Your task to perform on an android device: uninstall "Messages" Image 0: 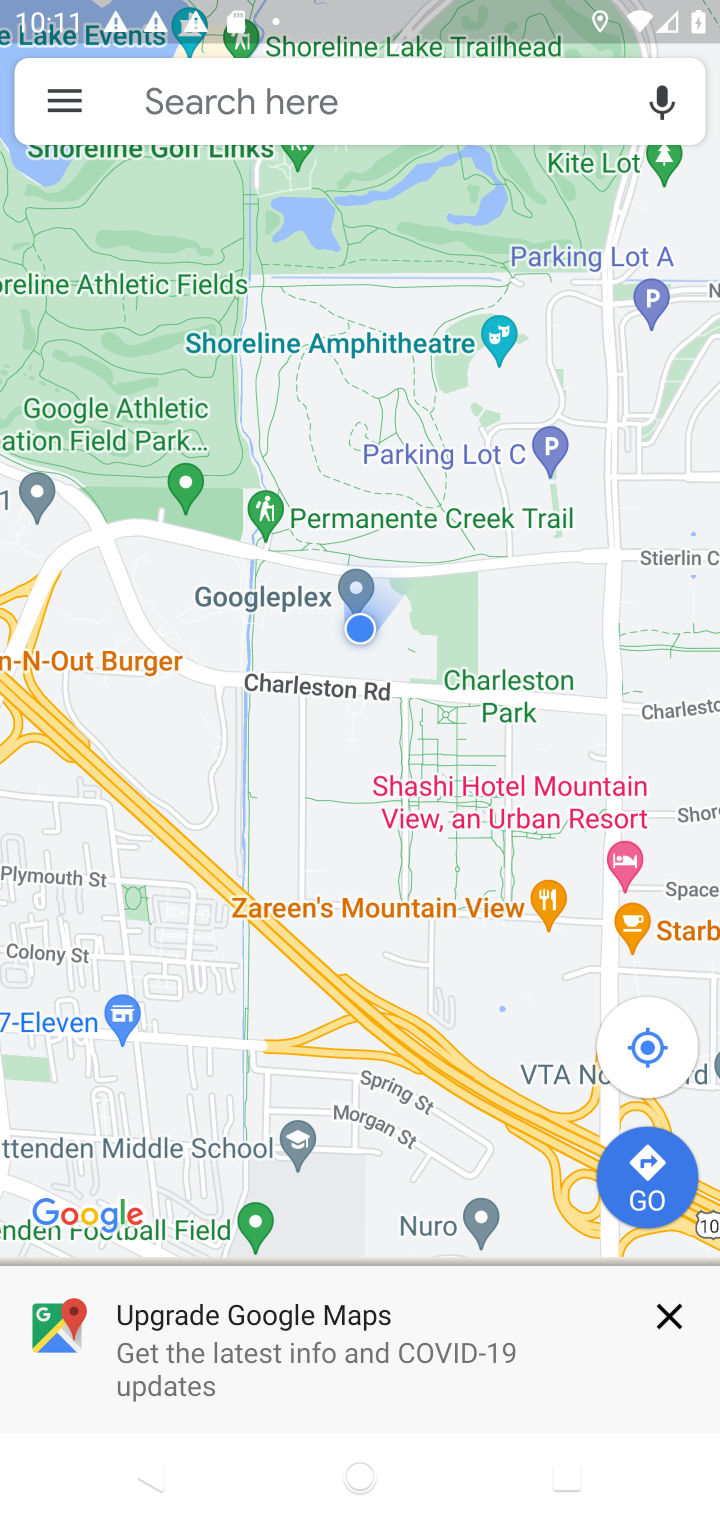
Step 0: press home button
Your task to perform on an android device: uninstall "Messages" Image 1: 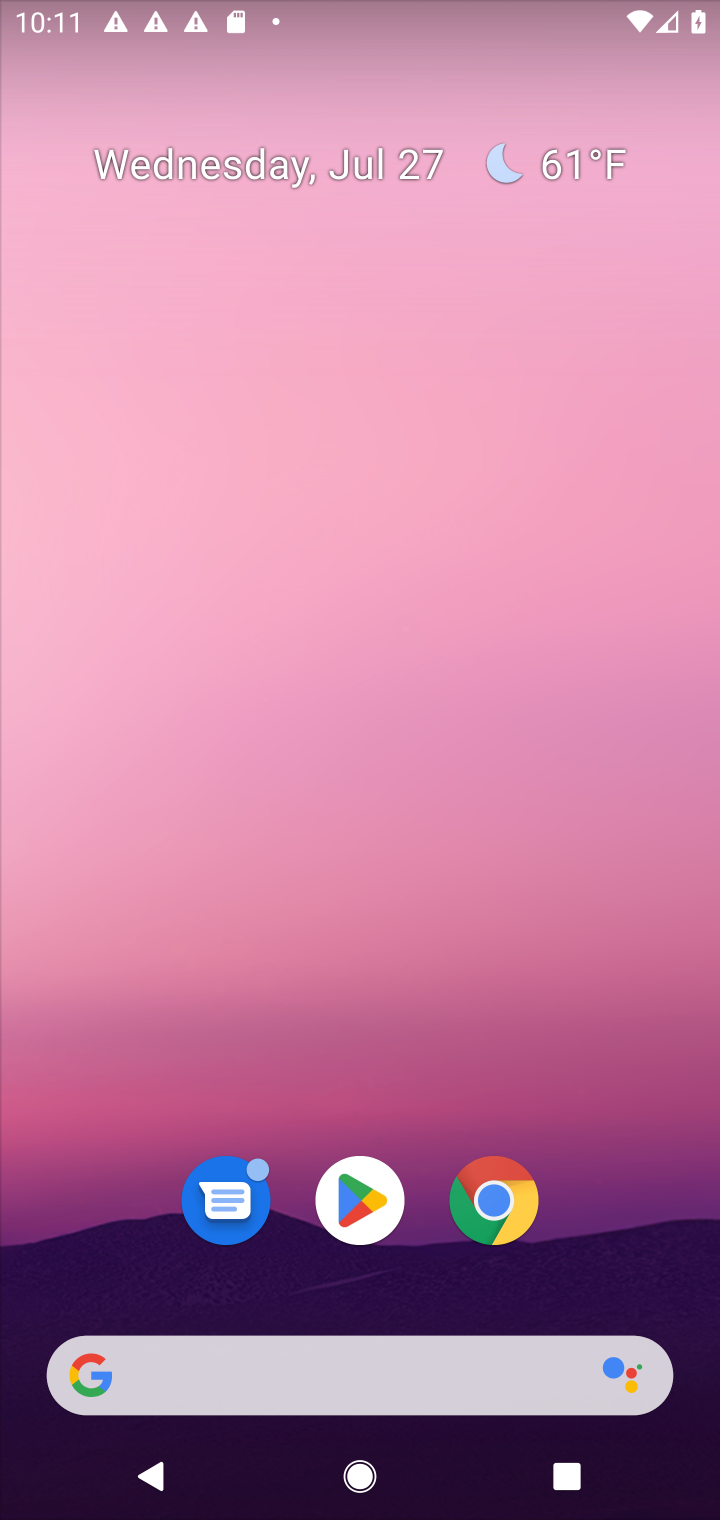
Step 1: click (351, 1177)
Your task to perform on an android device: uninstall "Messages" Image 2: 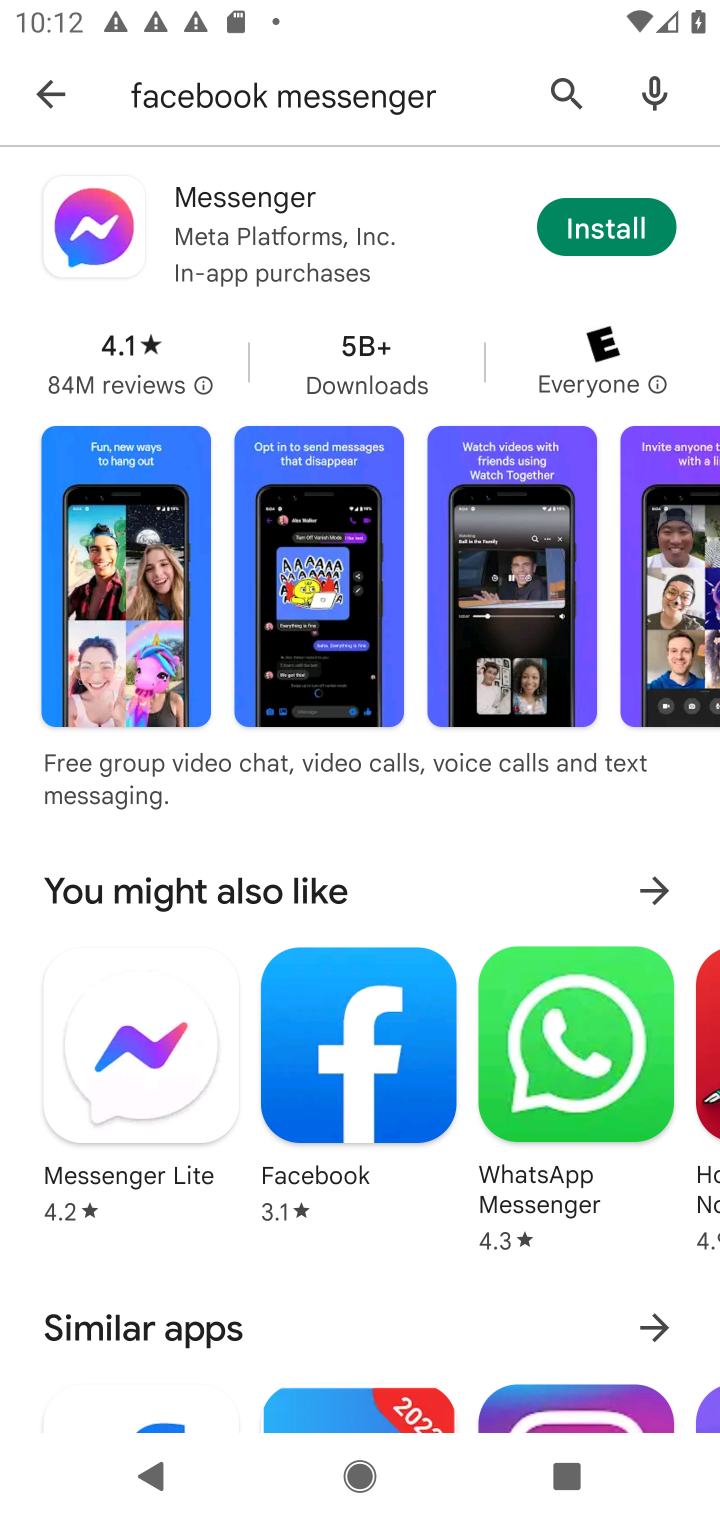
Step 2: click (568, 84)
Your task to perform on an android device: uninstall "Messages" Image 3: 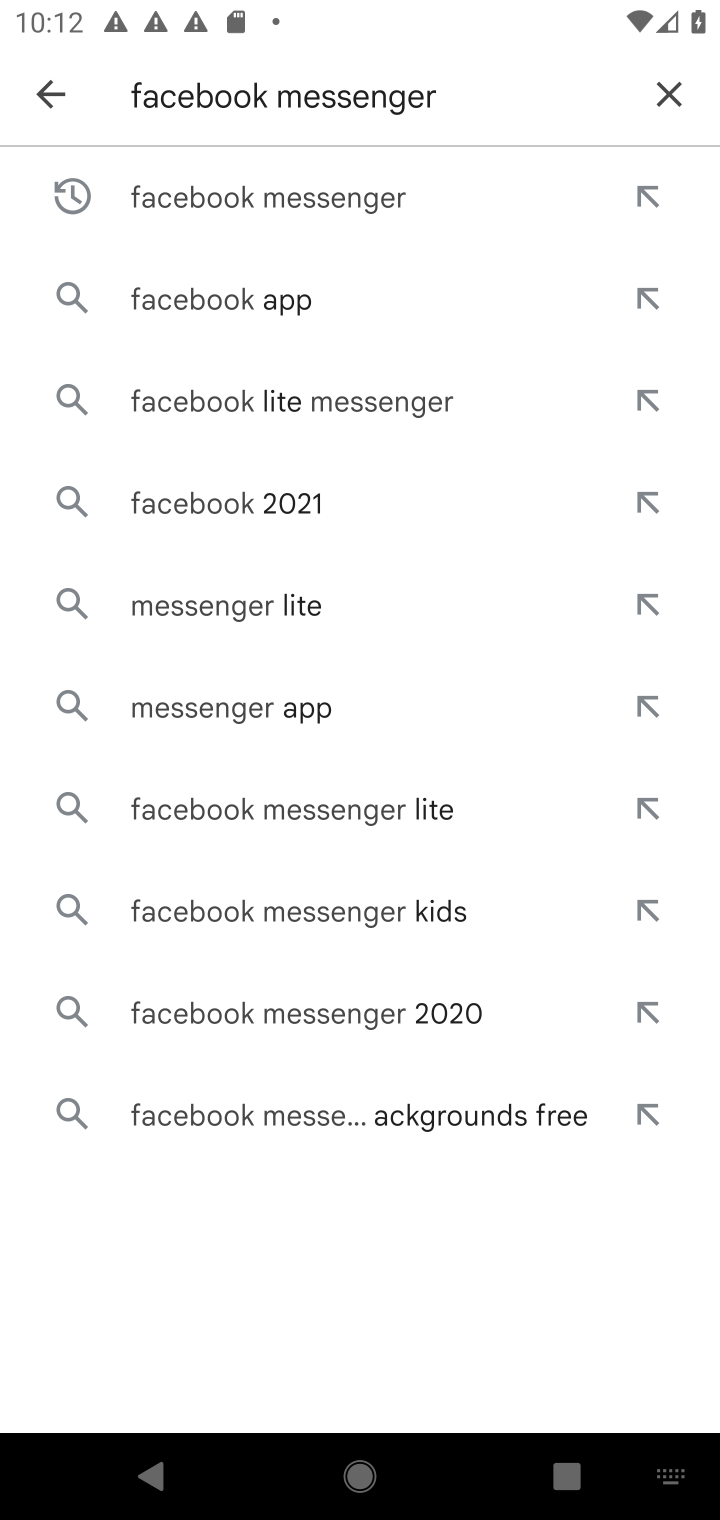
Step 3: click (674, 89)
Your task to perform on an android device: uninstall "Messages" Image 4: 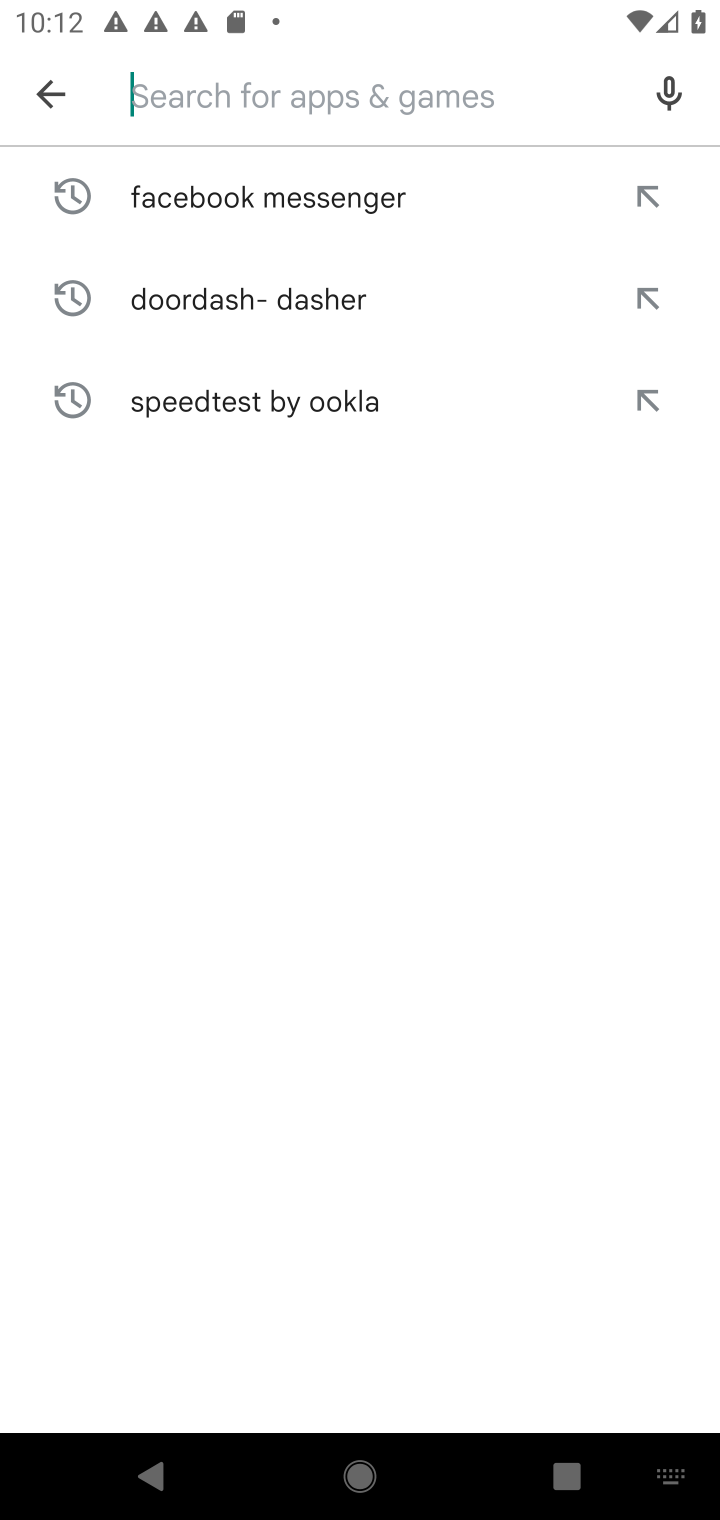
Step 4: type "messages"
Your task to perform on an android device: uninstall "Messages" Image 5: 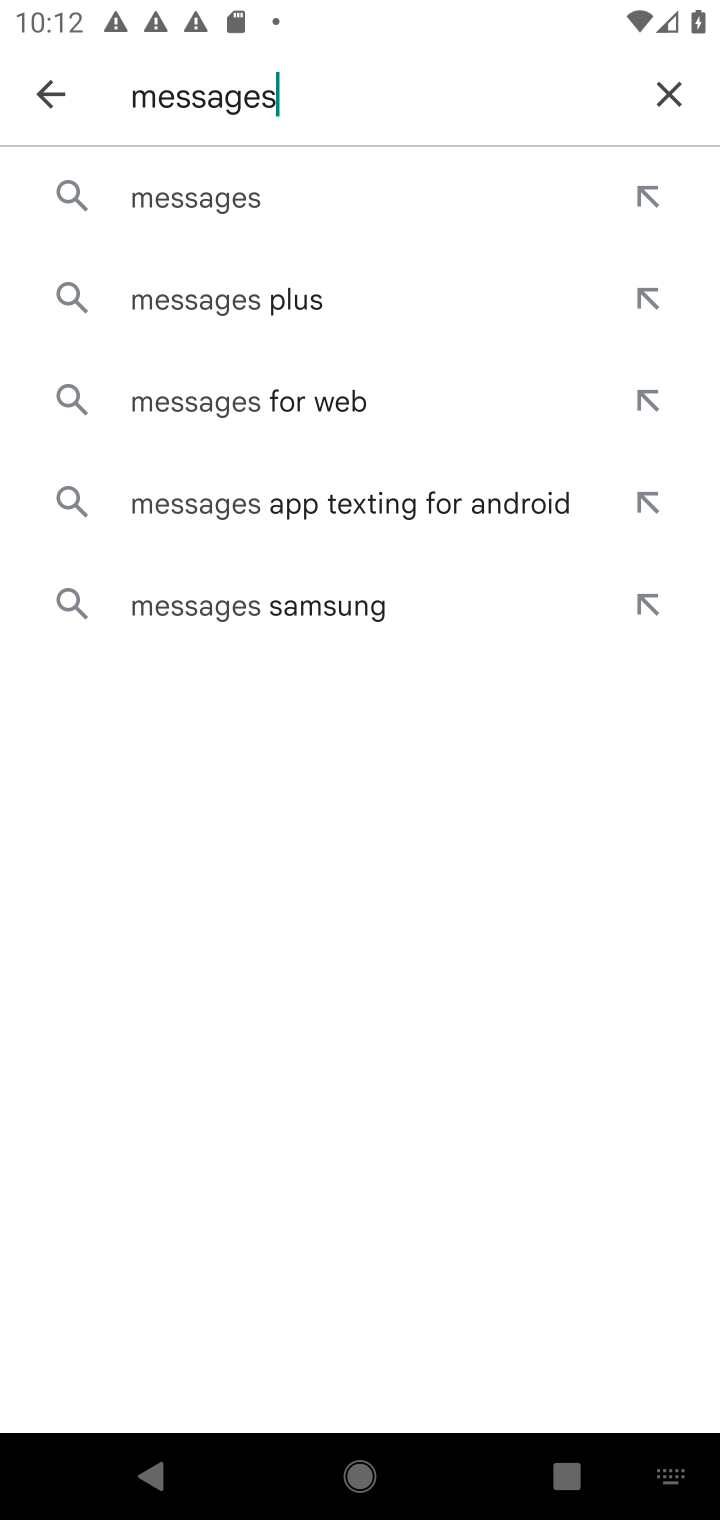
Step 5: click (253, 192)
Your task to perform on an android device: uninstall "Messages" Image 6: 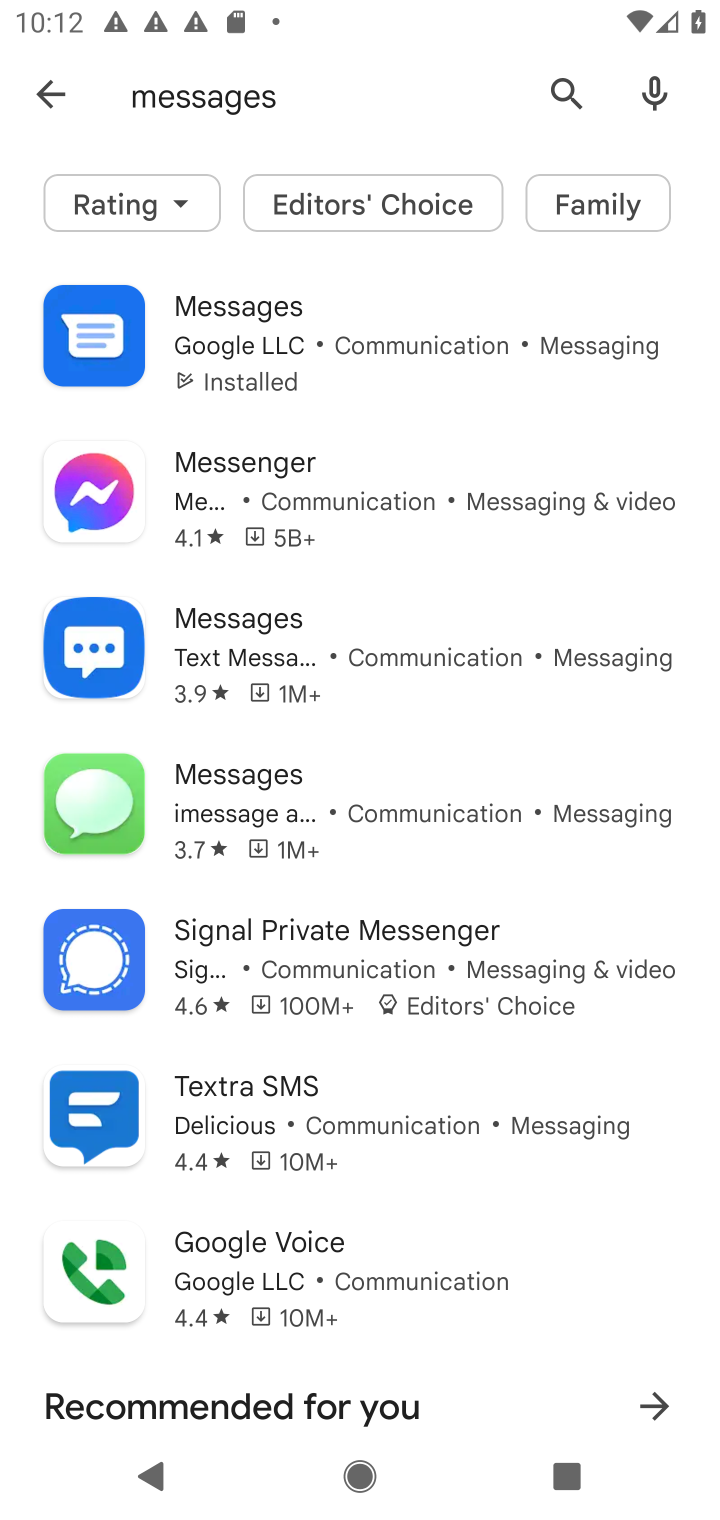
Step 6: click (243, 316)
Your task to perform on an android device: uninstall "Messages" Image 7: 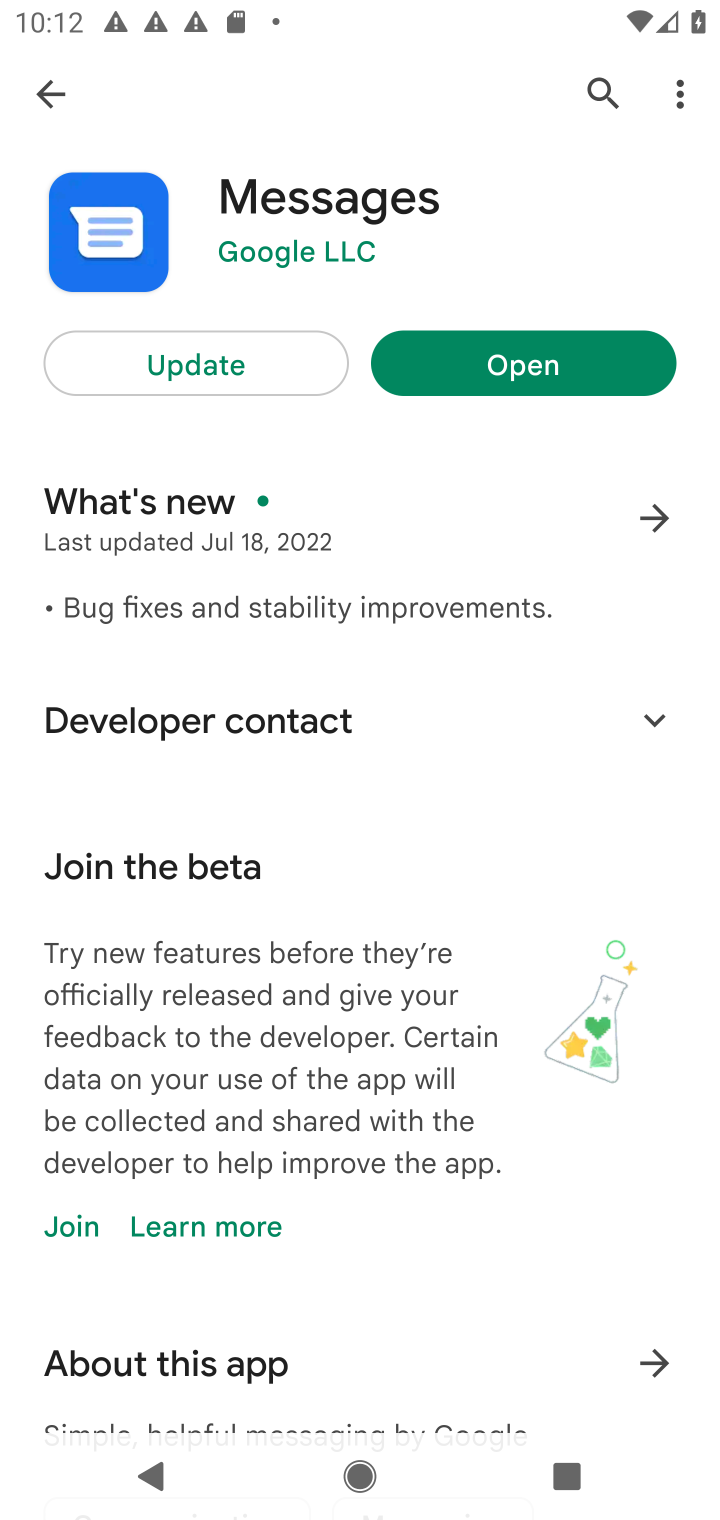
Step 7: click (249, 368)
Your task to perform on an android device: uninstall "Messages" Image 8: 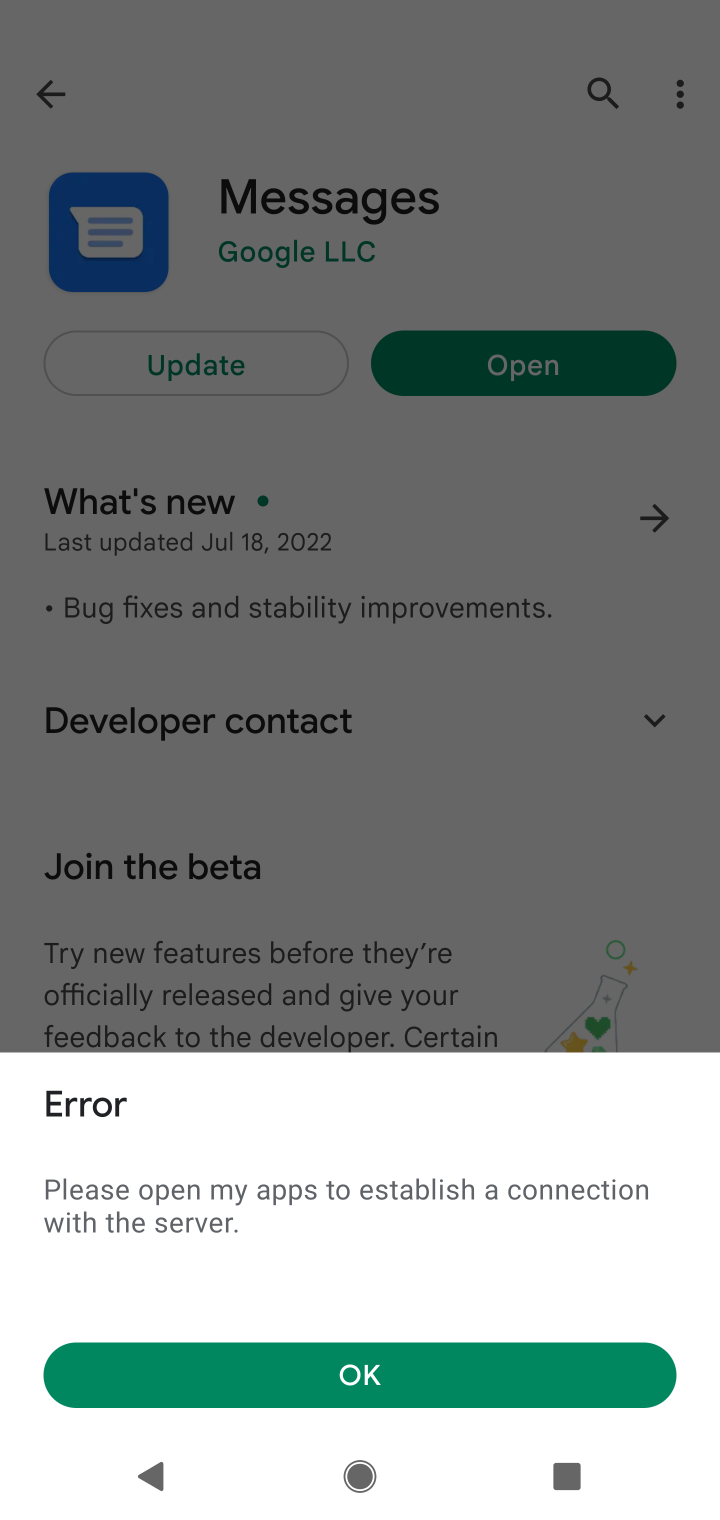
Step 8: click (324, 1371)
Your task to perform on an android device: uninstall "Messages" Image 9: 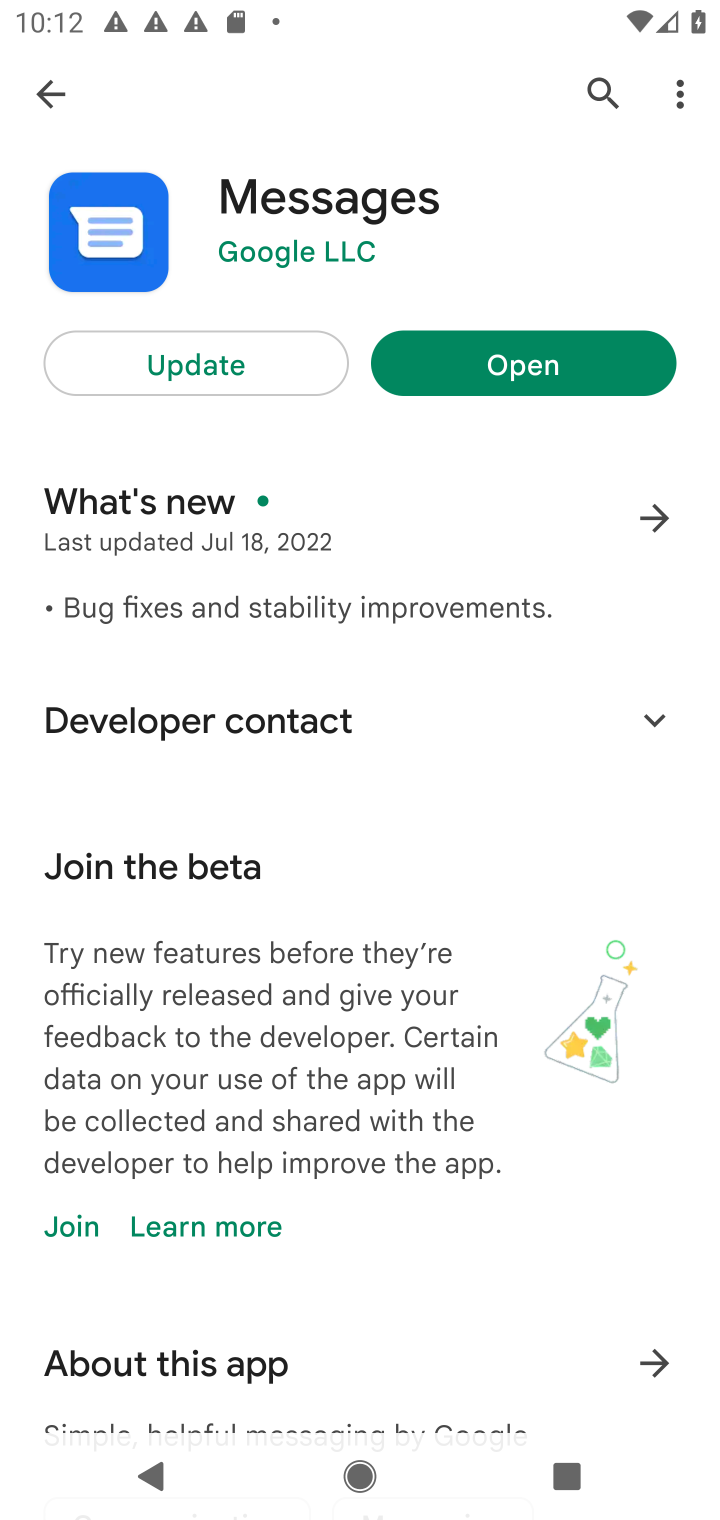
Step 9: task complete